Your task to perform on an android device: turn off smart reply in the gmail app Image 0: 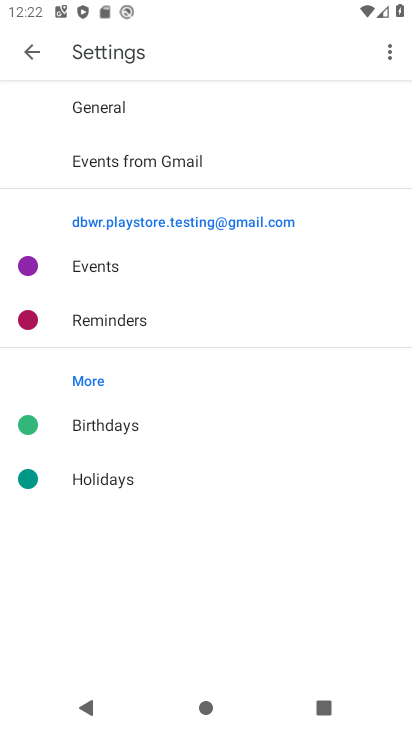
Step 0: press back button
Your task to perform on an android device: turn off smart reply in the gmail app Image 1: 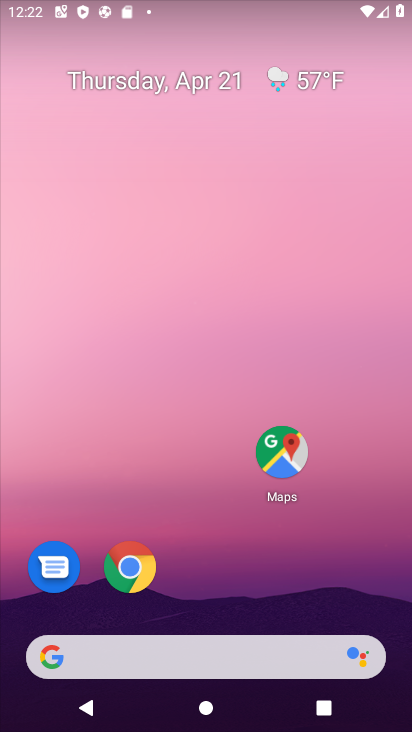
Step 1: drag from (141, 607) to (242, 96)
Your task to perform on an android device: turn off smart reply in the gmail app Image 2: 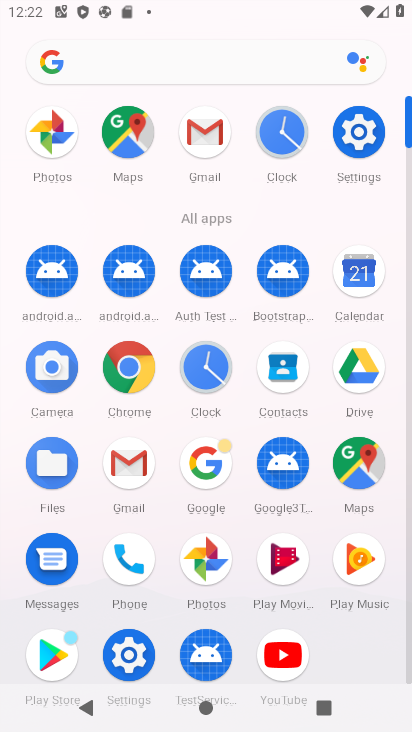
Step 2: click (205, 138)
Your task to perform on an android device: turn off smart reply in the gmail app Image 3: 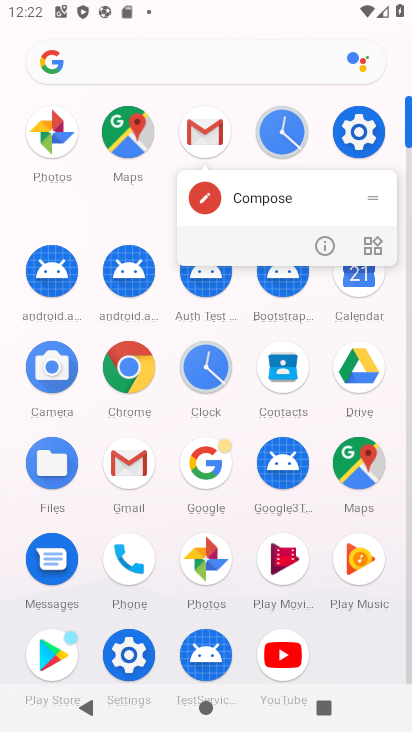
Step 3: click (208, 136)
Your task to perform on an android device: turn off smart reply in the gmail app Image 4: 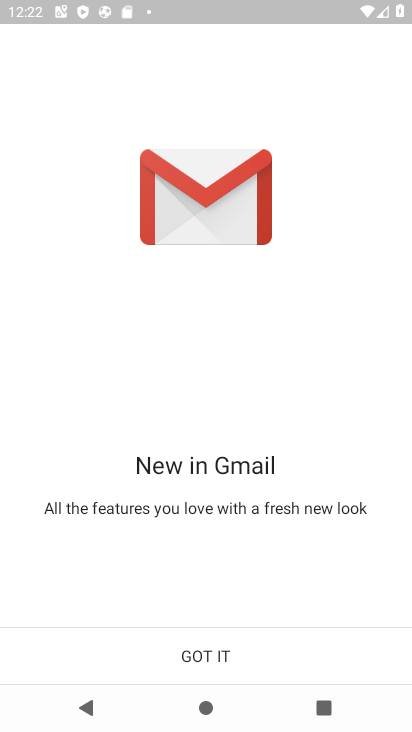
Step 4: click (203, 649)
Your task to perform on an android device: turn off smart reply in the gmail app Image 5: 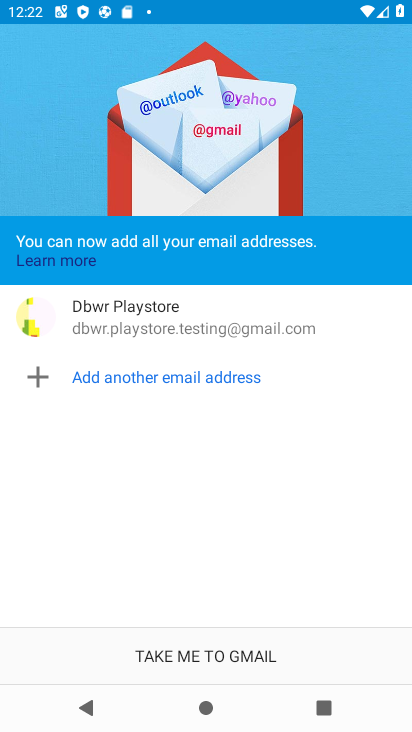
Step 5: click (224, 659)
Your task to perform on an android device: turn off smart reply in the gmail app Image 6: 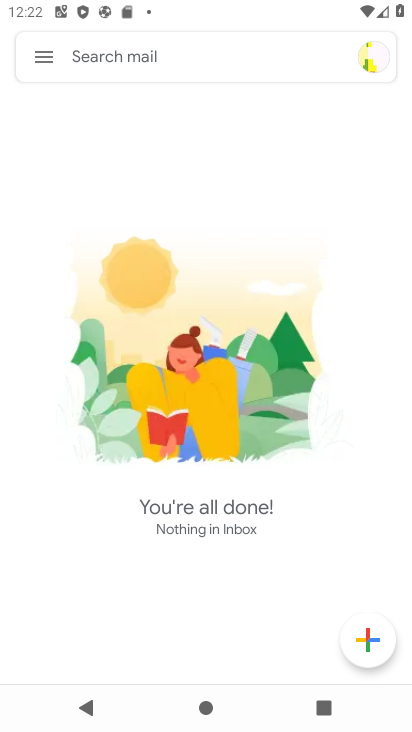
Step 6: click (43, 57)
Your task to perform on an android device: turn off smart reply in the gmail app Image 7: 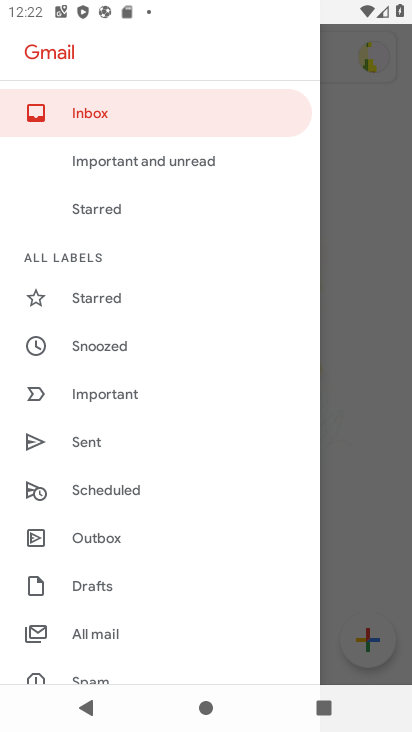
Step 7: drag from (175, 533) to (244, 228)
Your task to perform on an android device: turn off smart reply in the gmail app Image 8: 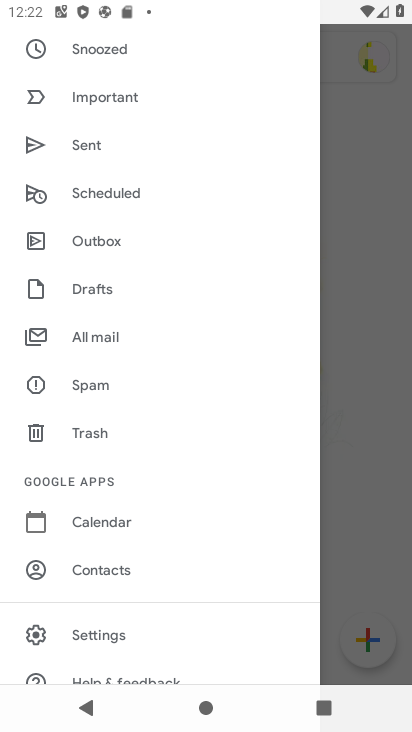
Step 8: click (155, 636)
Your task to perform on an android device: turn off smart reply in the gmail app Image 9: 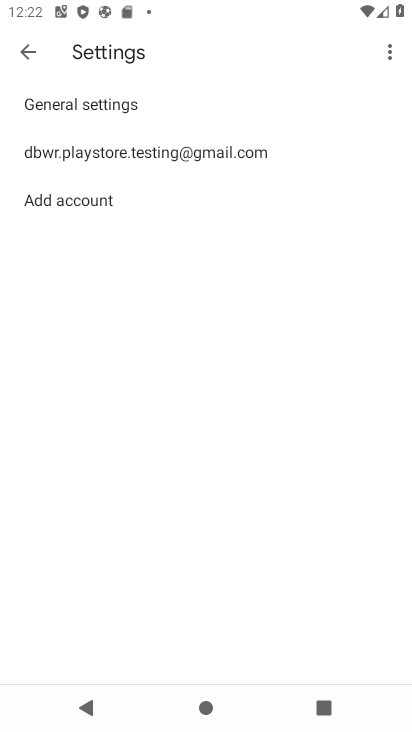
Step 9: click (272, 156)
Your task to perform on an android device: turn off smart reply in the gmail app Image 10: 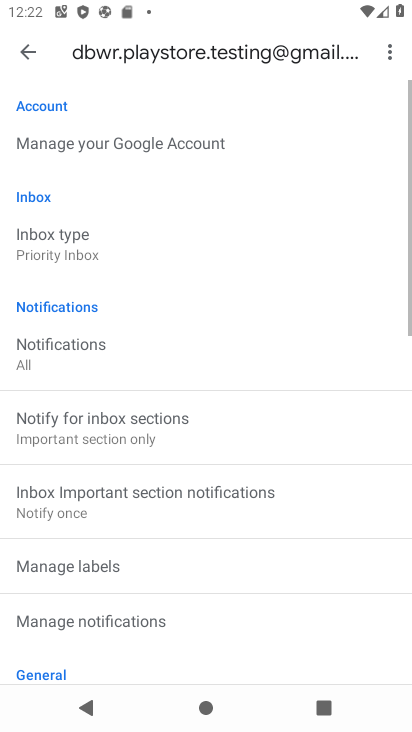
Step 10: drag from (215, 585) to (310, 146)
Your task to perform on an android device: turn off smart reply in the gmail app Image 11: 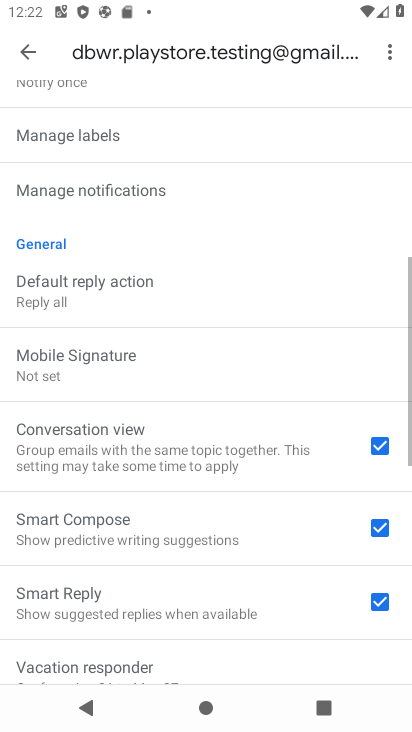
Step 11: drag from (209, 507) to (266, 256)
Your task to perform on an android device: turn off smart reply in the gmail app Image 12: 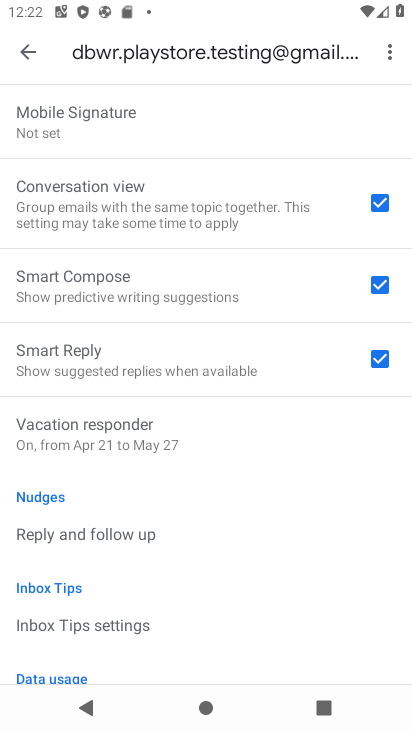
Step 12: click (375, 360)
Your task to perform on an android device: turn off smart reply in the gmail app Image 13: 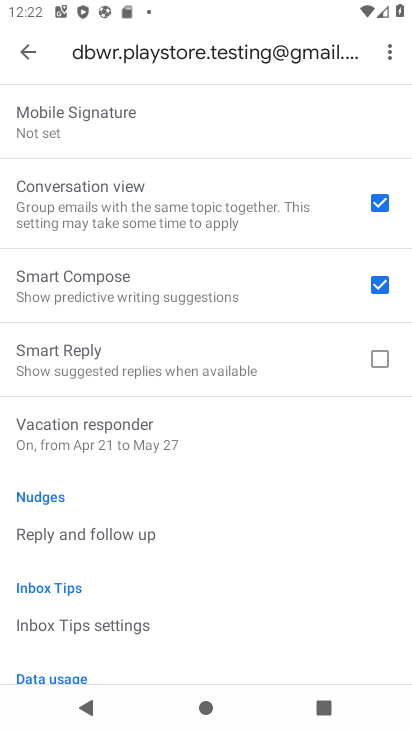
Step 13: task complete